Your task to perform on an android device: turn off javascript in the chrome app Image 0: 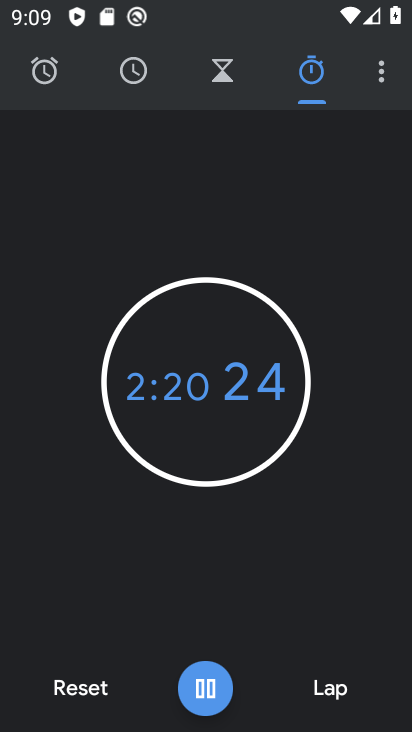
Step 0: press home button
Your task to perform on an android device: turn off javascript in the chrome app Image 1: 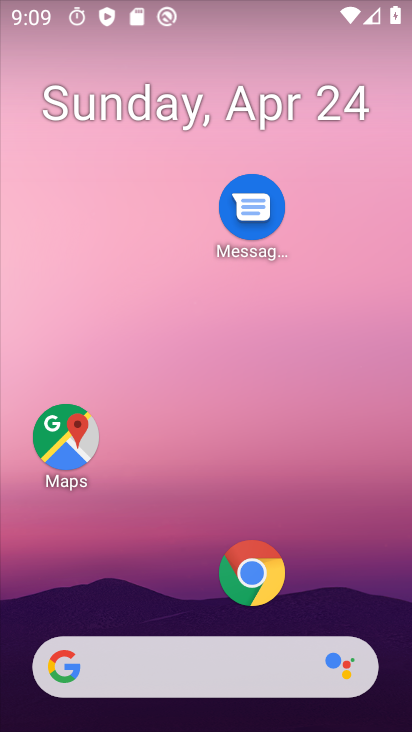
Step 1: click (273, 559)
Your task to perform on an android device: turn off javascript in the chrome app Image 2: 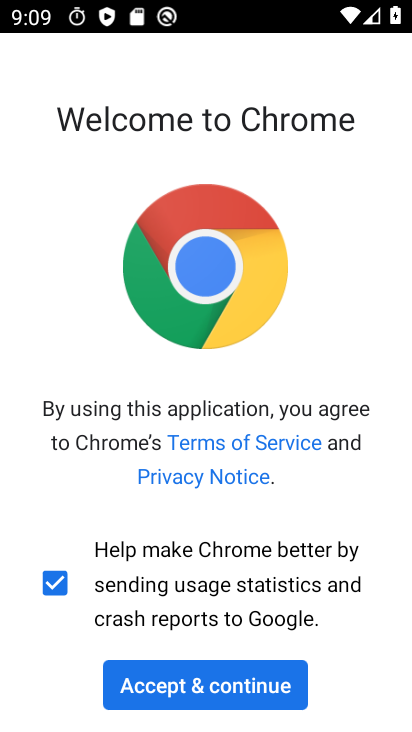
Step 2: click (198, 688)
Your task to perform on an android device: turn off javascript in the chrome app Image 3: 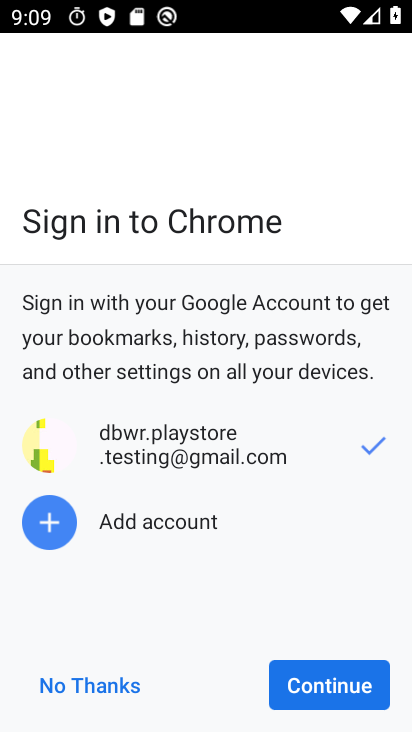
Step 3: click (337, 680)
Your task to perform on an android device: turn off javascript in the chrome app Image 4: 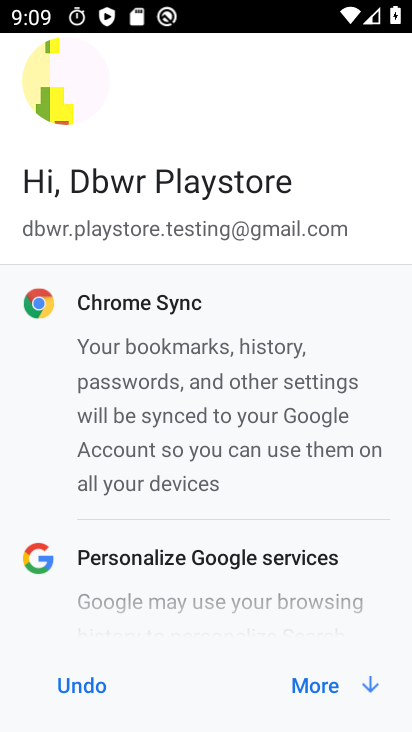
Step 4: click (293, 679)
Your task to perform on an android device: turn off javascript in the chrome app Image 5: 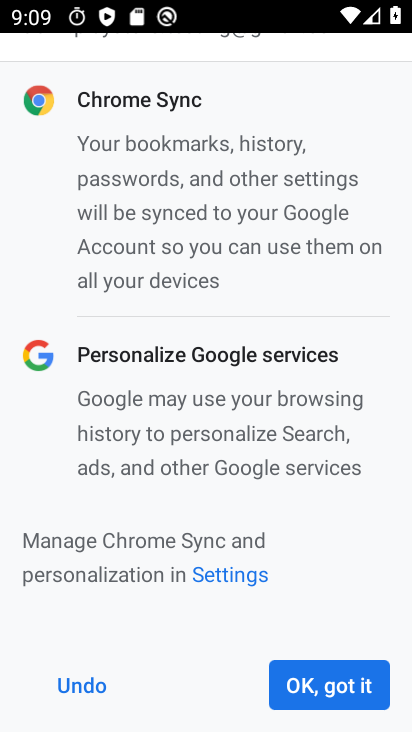
Step 5: click (323, 687)
Your task to perform on an android device: turn off javascript in the chrome app Image 6: 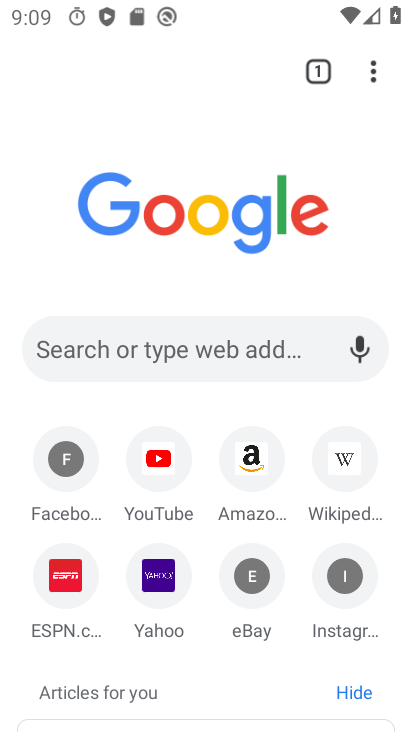
Step 6: click (373, 82)
Your task to perform on an android device: turn off javascript in the chrome app Image 7: 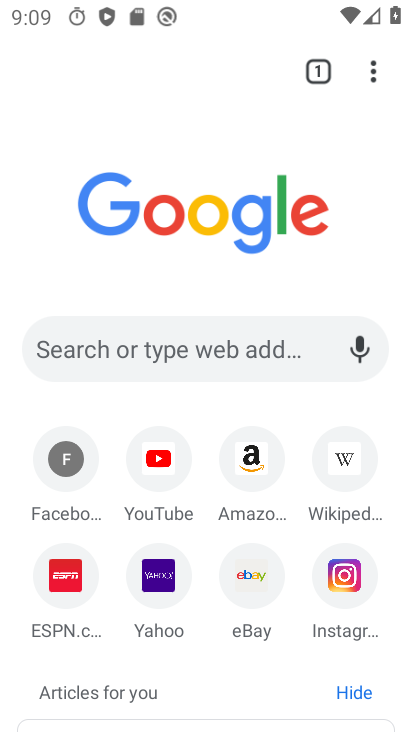
Step 7: click (376, 67)
Your task to perform on an android device: turn off javascript in the chrome app Image 8: 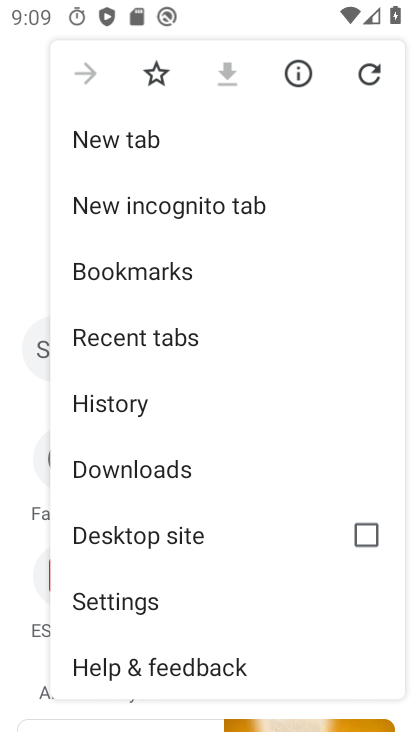
Step 8: click (116, 602)
Your task to perform on an android device: turn off javascript in the chrome app Image 9: 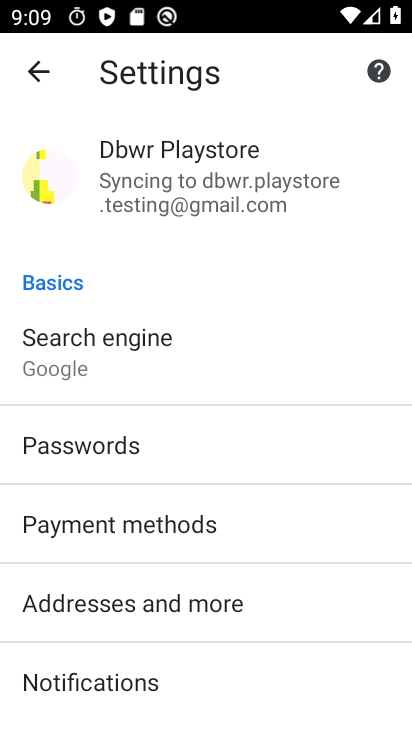
Step 9: drag from (145, 533) to (175, 219)
Your task to perform on an android device: turn off javascript in the chrome app Image 10: 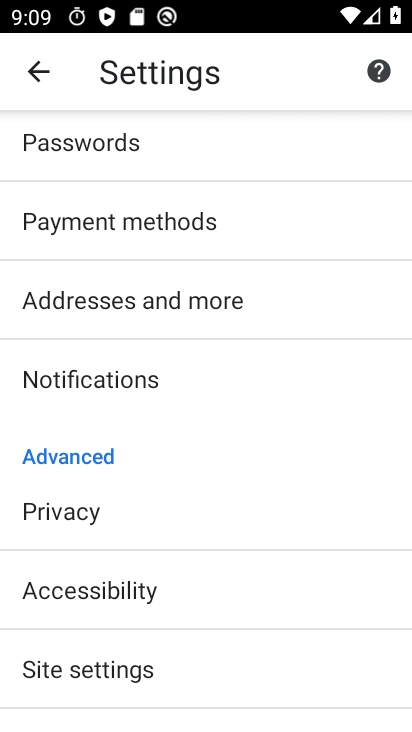
Step 10: click (60, 678)
Your task to perform on an android device: turn off javascript in the chrome app Image 11: 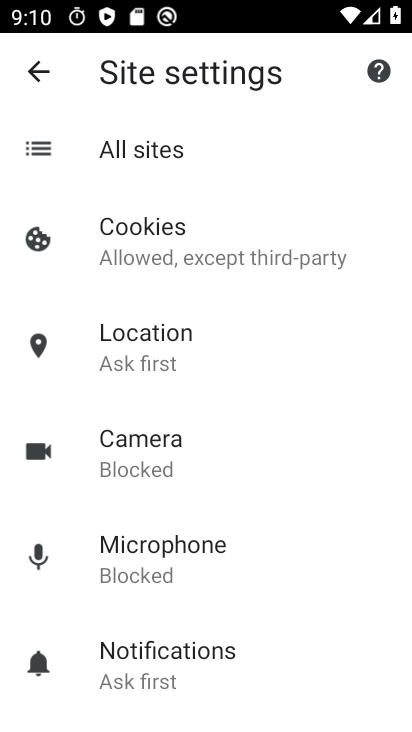
Step 11: drag from (131, 630) to (177, 236)
Your task to perform on an android device: turn off javascript in the chrome app Image 12: 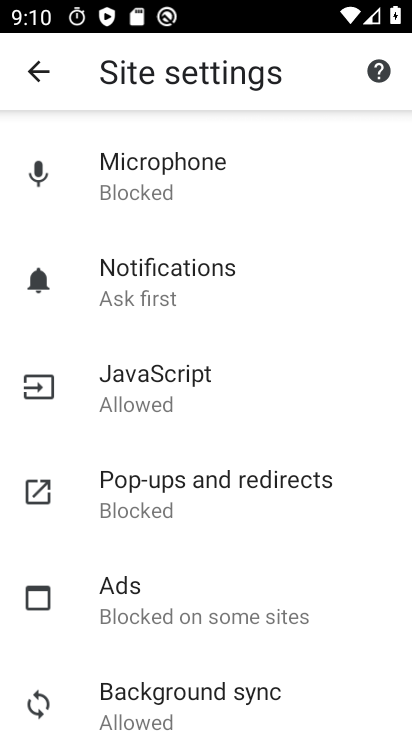
Step 12: click (135, 395)
Your task to perform on an android device: turn off javascript in the chrome app Image 13: 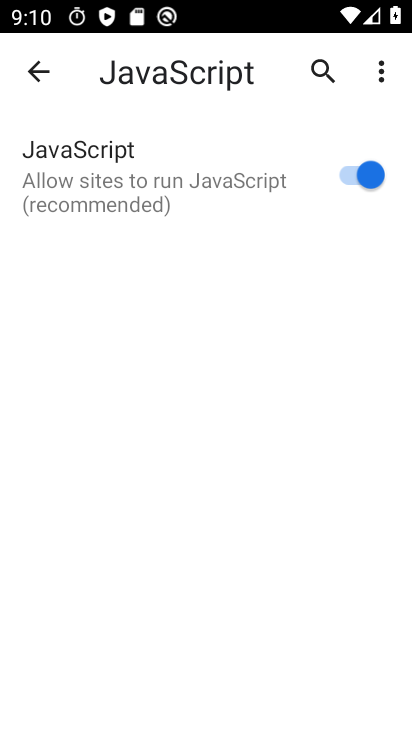
Step 13: click (347, 177)
Your task to perform on an android device: turn off javascript in the chrome app Image 14: 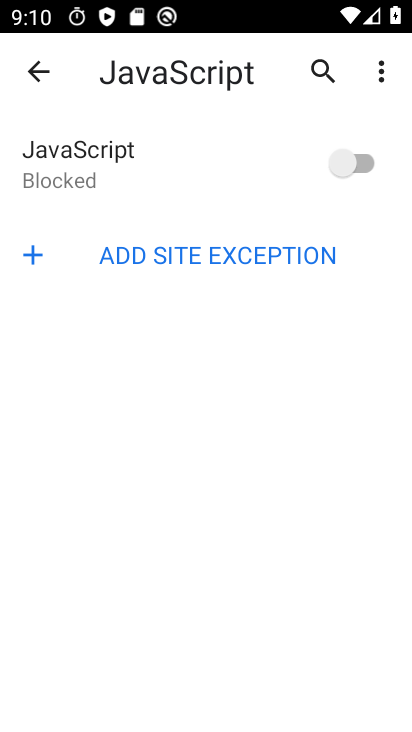
Step 14: task complete